Your task to perform on an android device: Open the web browser Image 0: 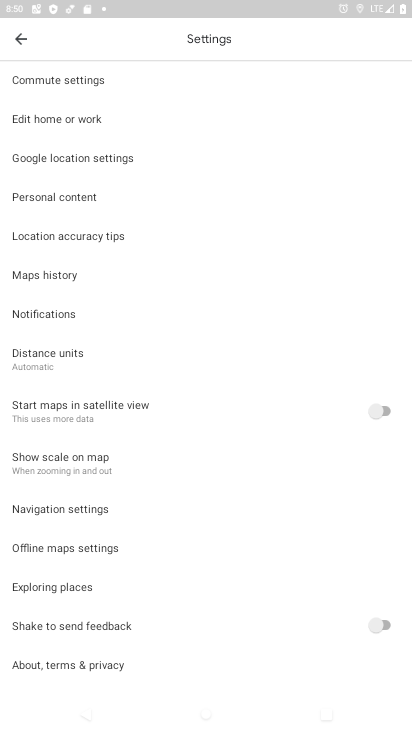
Step 0: press home button
Your task to perform on an android device: Open the web browser Image 1: 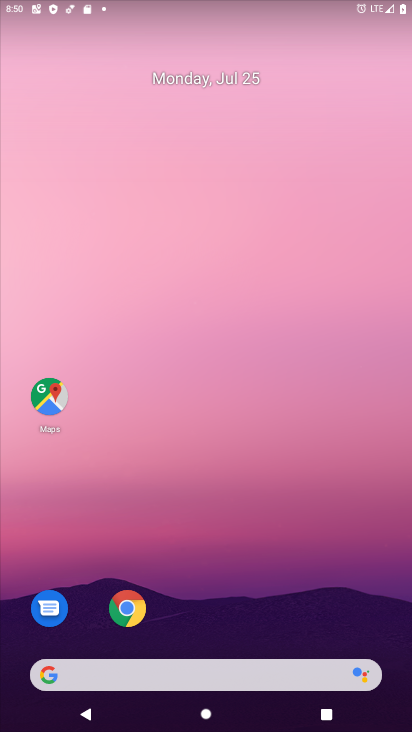
Step 1: click (125, 606)
Your task to perform on an android device: Open the web browser Image 2: 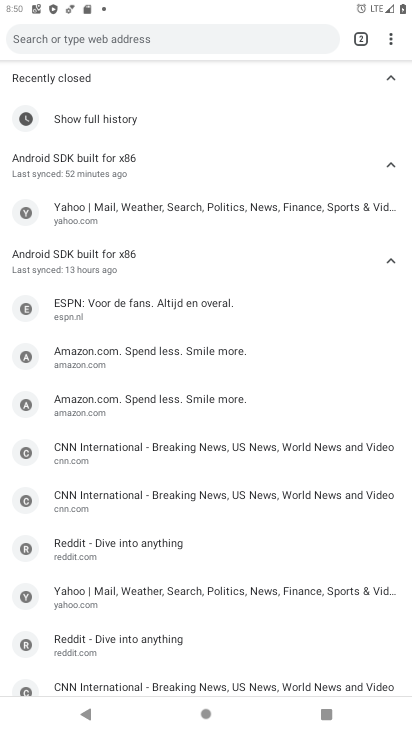
Step 2: task complete